Your task to perform on an android device: What's the weather going to be this weekend? Image 0: 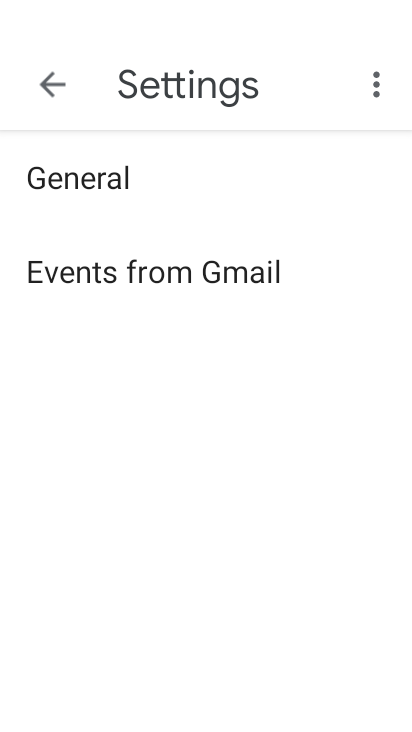
Step 0: press home button
Your task to perform on an android device: What's the weather going to be this weekend? Image 1: 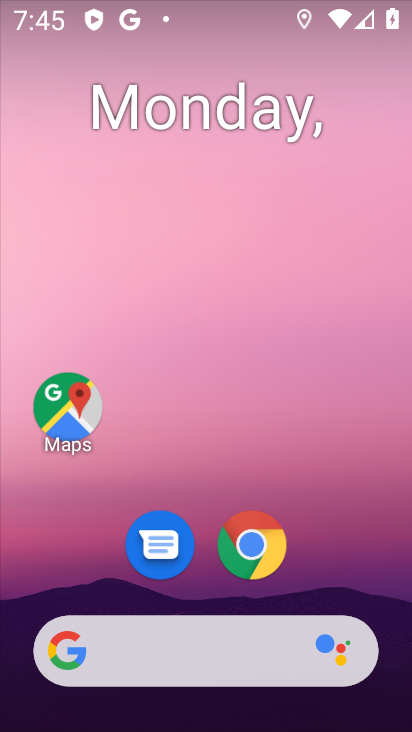
Step 1: drag from (52, 295) to (406, 198)
Your task to perform on an android device: What's the weather going to be this weekend? Image 2: 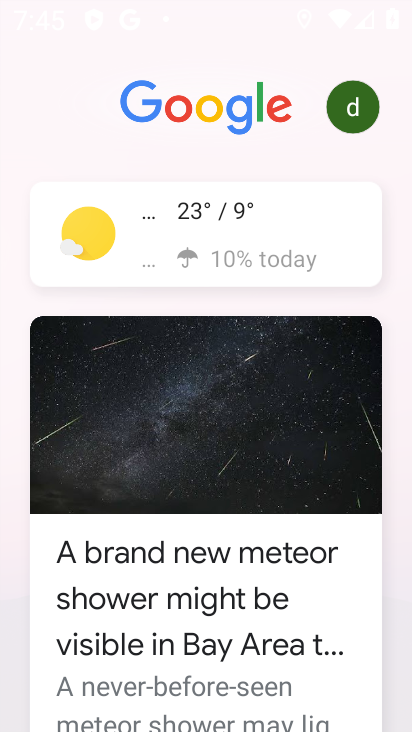
Step 2: click (67, 242)
Your task to perform on an android device: What's the weather going to be this weekend? Image 3: 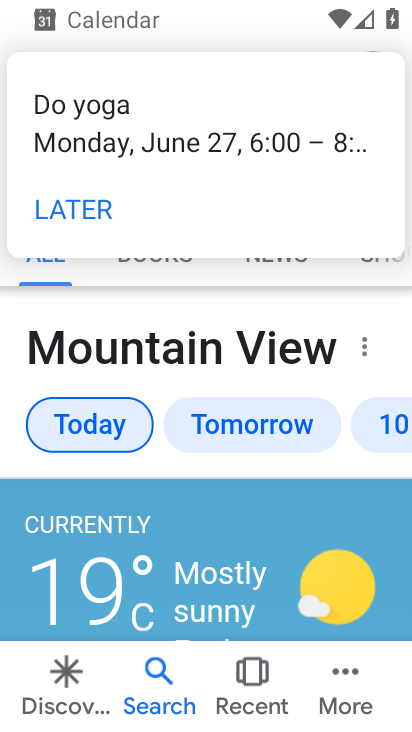
Step 3: click (357, 425)
Your task to perform on an android device: What's the weather going to be this weekend? Image 4: 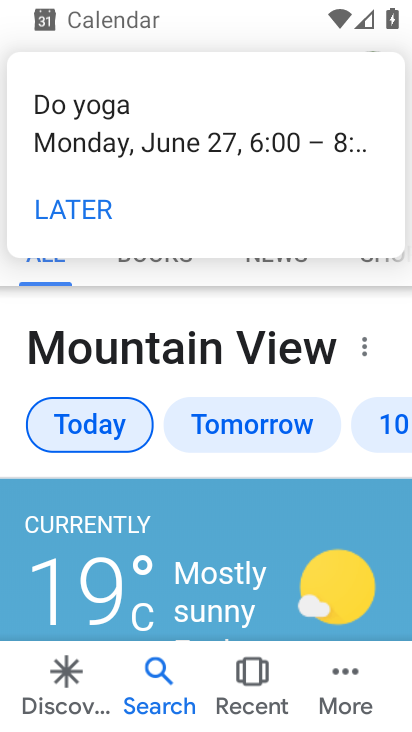
Step 4: click (96, 213)
Your task to perform on an android device: What's the weather going to be this weekend? Image 5: 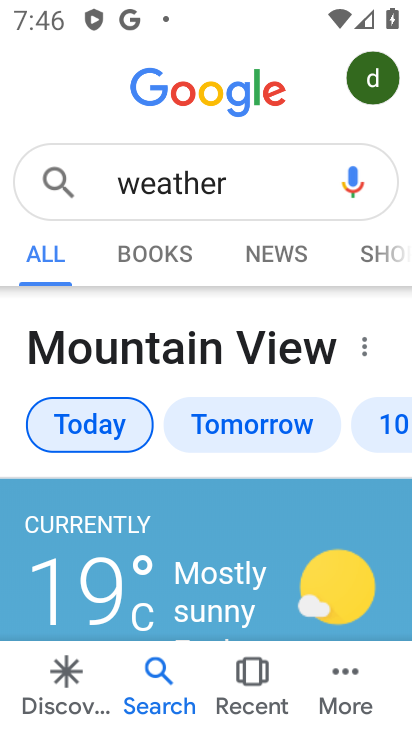
Step 5: click (388, 447)
Your task to perform on an android device: What's the weather going to be this weekend? Image 6: 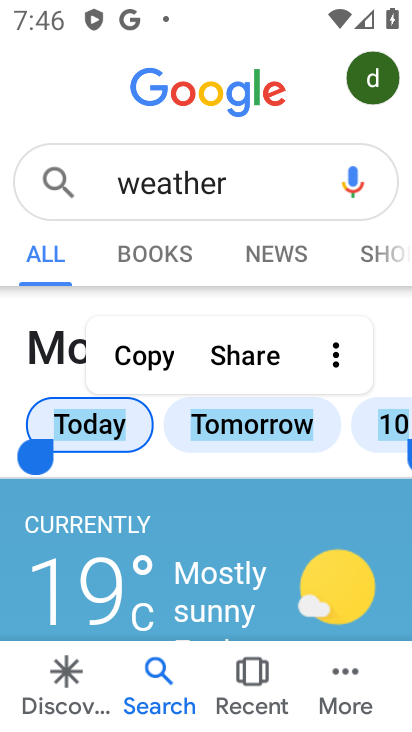
Step 6: click (381, 434)
Your task to perform on an android device: What's the weather going to be this weekend? Image 7: 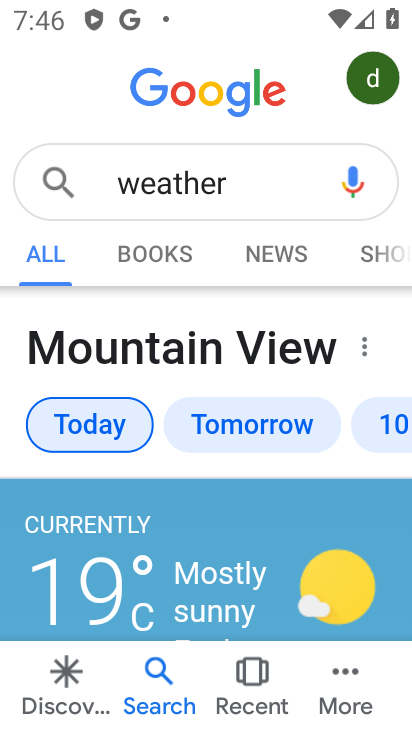
Step 7: click (364, 434)
Your task to perform on an android device: What's the weather going to be this weekend? Image 8: 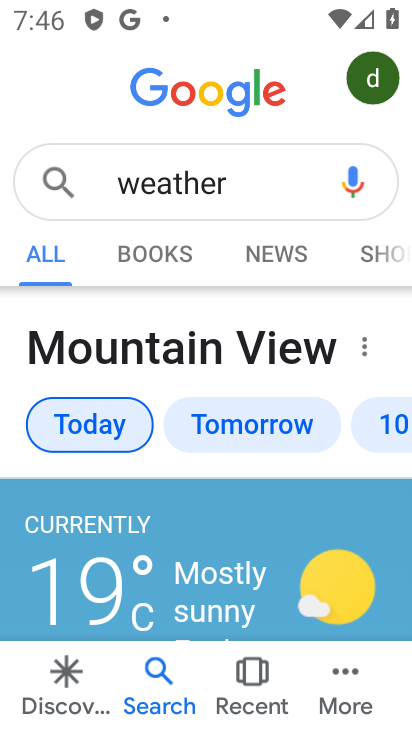
Step 8: click (272, 183)
Your task to perform on an android device: What's the weather going to be this weekend? Image 9: 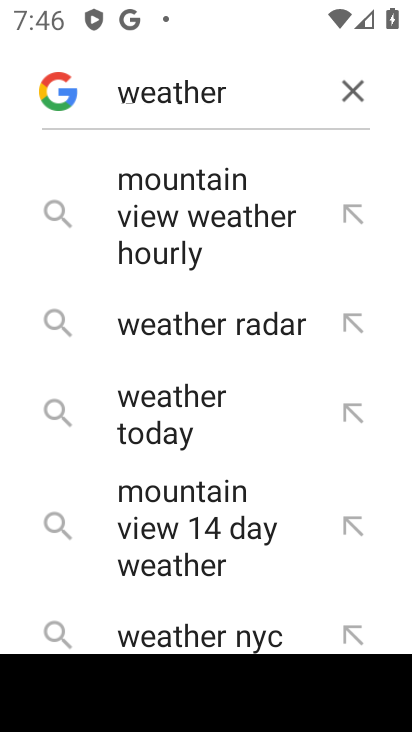
Step 9: type " thi weekend"
Your task to perform on an android device: What's the weather going to be this weekend? Image 10: 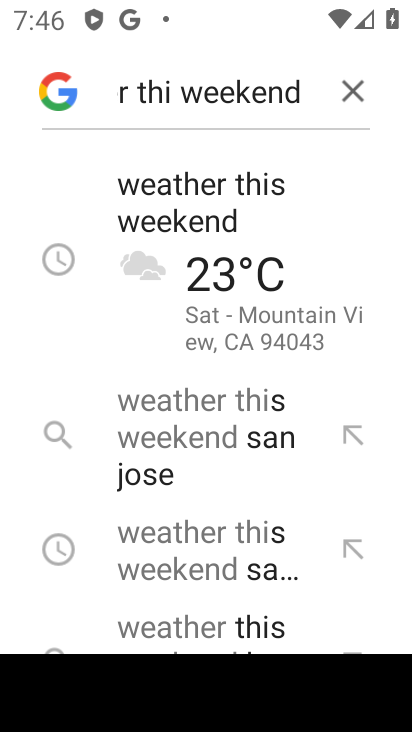
Step 10: click (178, 262)
Your task to perform on an android device: What's the weather going to be this weekend? Image 11: 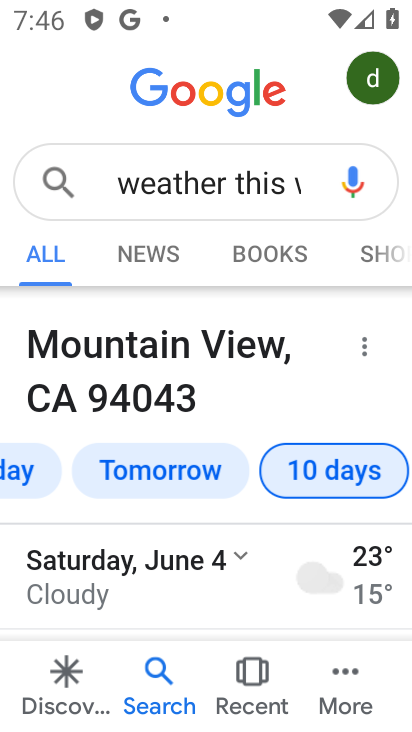
Step 11: task complete